Your task to perform on an android device: toggle javascript in the chrome app Image 0: 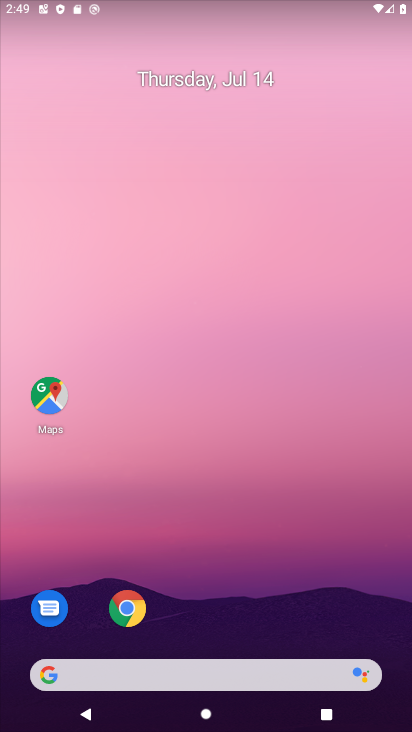
Step 0: click (122, 612)
Your task to perform on an android device: toggle javascript in the chrome app Image 1: 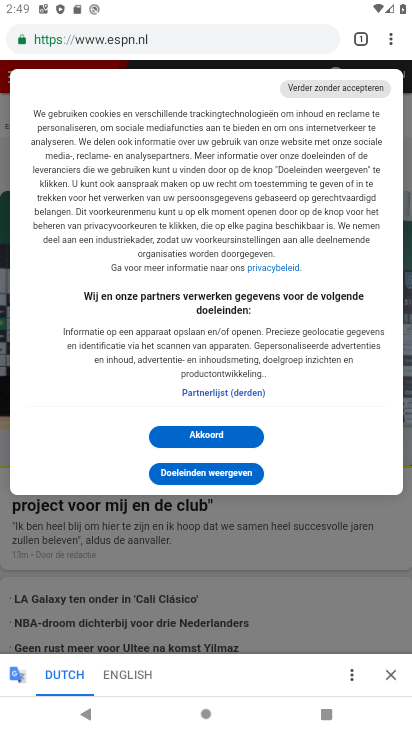
Step 1: click (363, 45)
Your task to perform on an android device: toggle javascript in the chrome app Image 2: 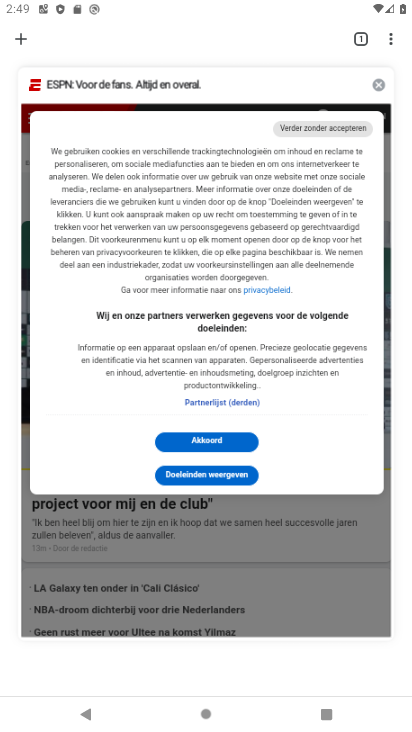
Step 2: click (381, 86)
Your task to perform on an android device: toggle javascript in the chrome app Image 3: 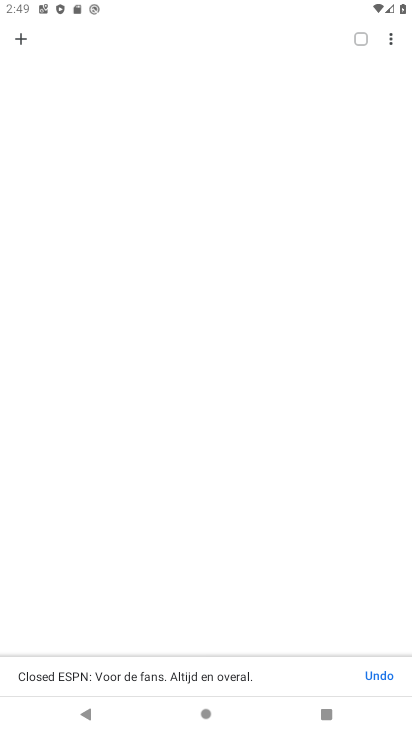
Step 3: click (20, 38)
Your task to perform on an android device: toggle javascript in the chrome app Image 4: 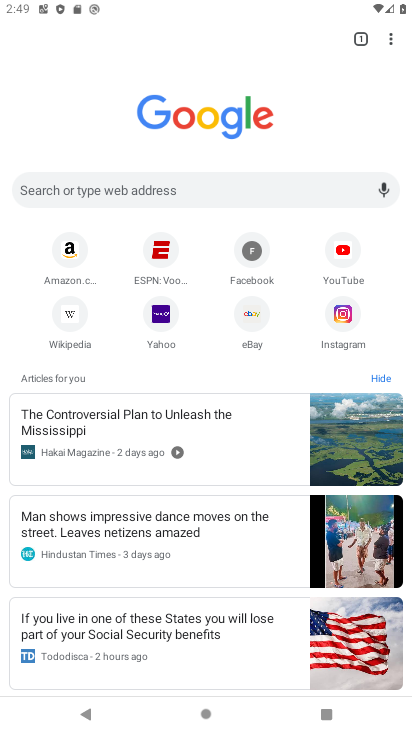
Step 4: click (387, 37)
Your task to perform on an android device: toggle javascript in the chrome app Image 5: 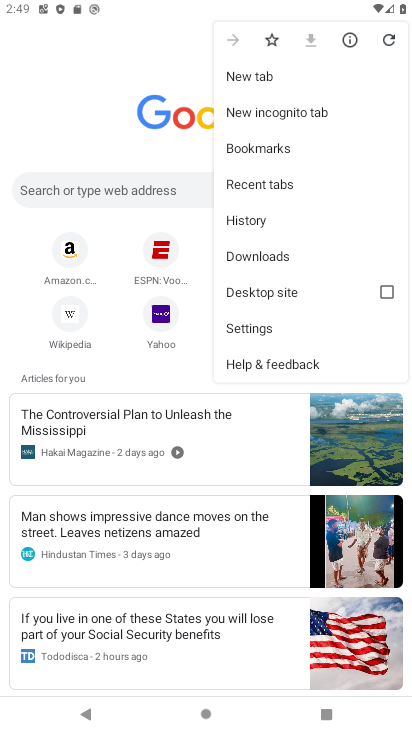
Step 5: click (272, 325)
Your task to perform on an android device: toggle javascript in the chrome app Image 6: 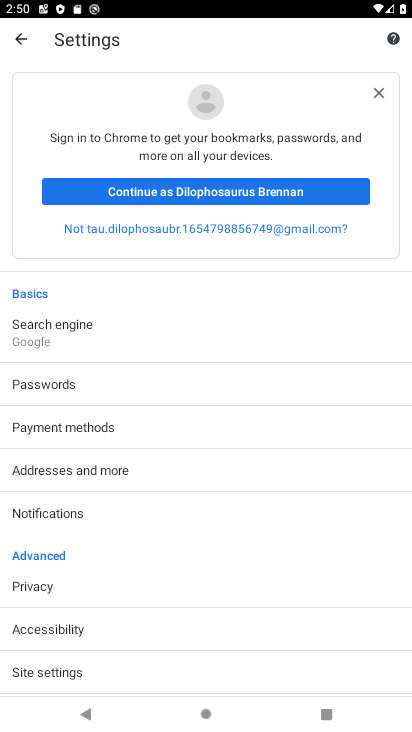
Step 6: drag from (102, 634) to (188, 266)
Your task to perform on an android device: toggle javascript in the chrome app Image 7: 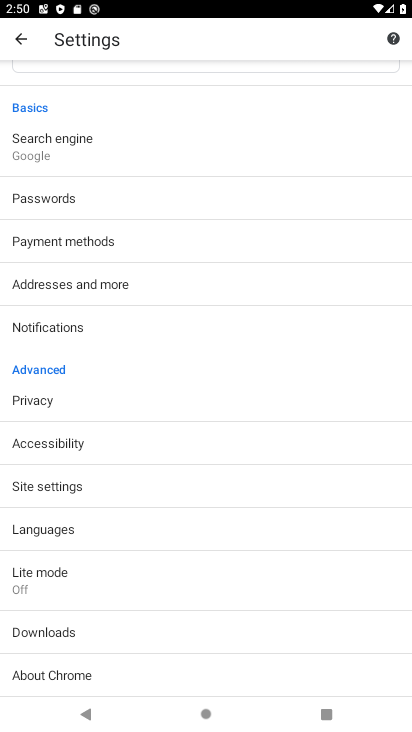
Step 7: click (81, 485)
Your task to perform on an android device: toggle javascript in the chrome app Image 8: 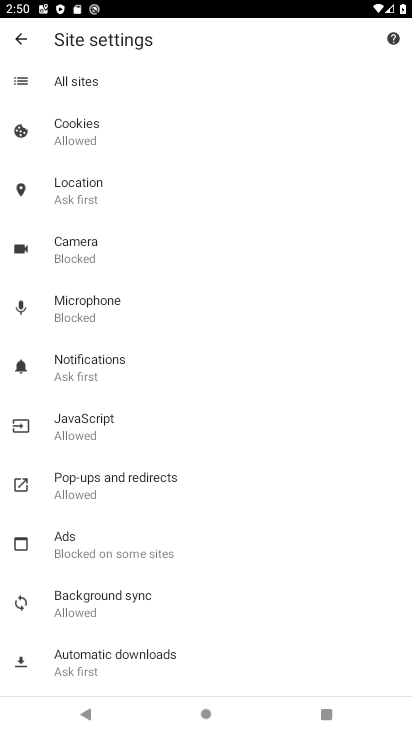
Step 8: click (91, 423)
Your task to perform on an android device: toggle javascript in the chrome app Image 9: 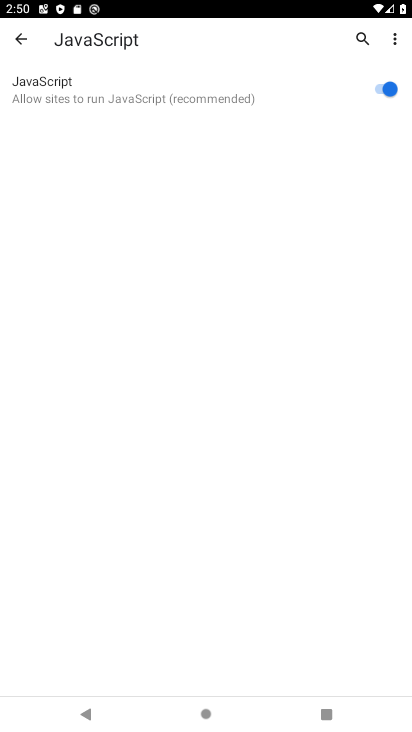
Step 9: click (392, 88)
Your task to perform on an android device: toggle javascript in the chrome app Image 10: 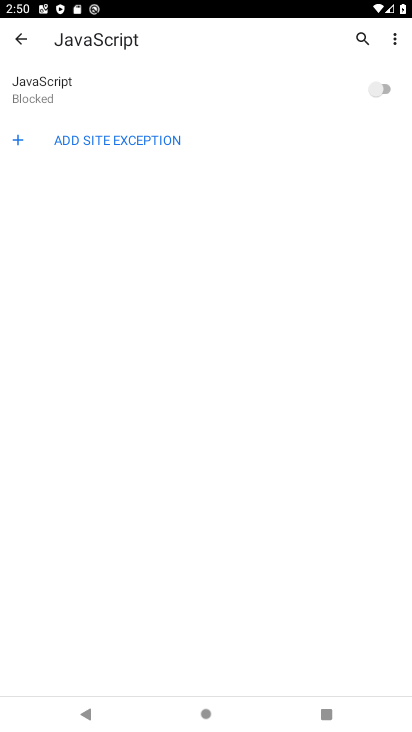
Step 10: task complete